Your task to perform on an android device: Go to CNN.com Image 0: 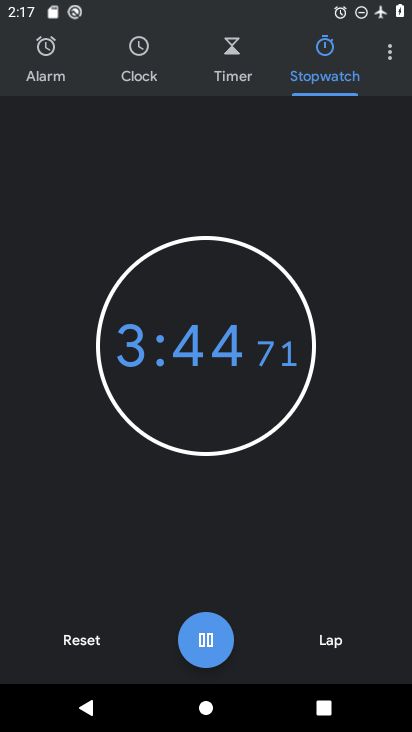
Step 0: press home button
Your task to perform on an android device: Go to CNN.com Image 1: 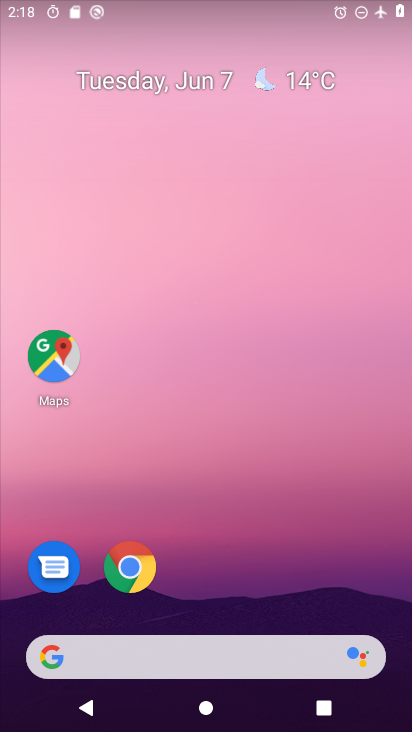
Step 1: drag from (302, 576) to (294, 54)
Your task to perform on an android device: Go to CNN.com Image 2: 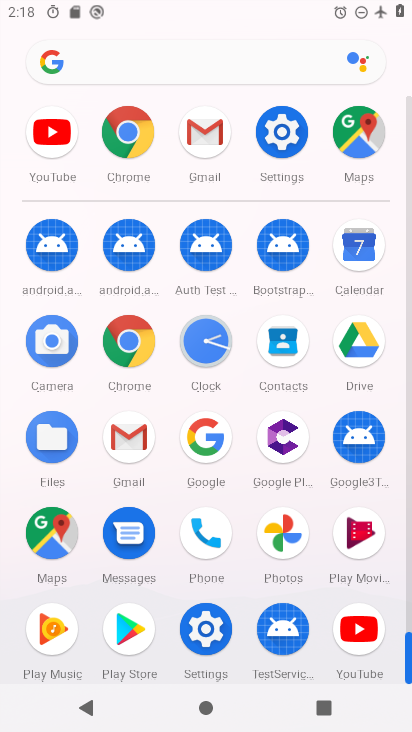
Step 2: click (147, 156)
Your task to perform on an android device: Go to CNN.com Image 3: 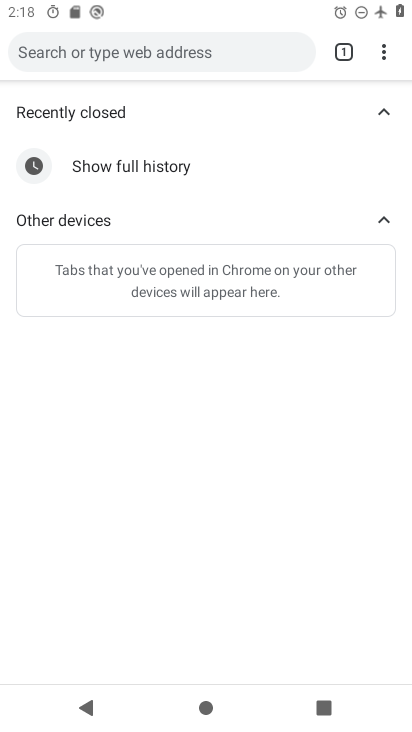
Step 3: click (158, 68)
Your task to perform on an android device: Go to CNN.com Image 4: 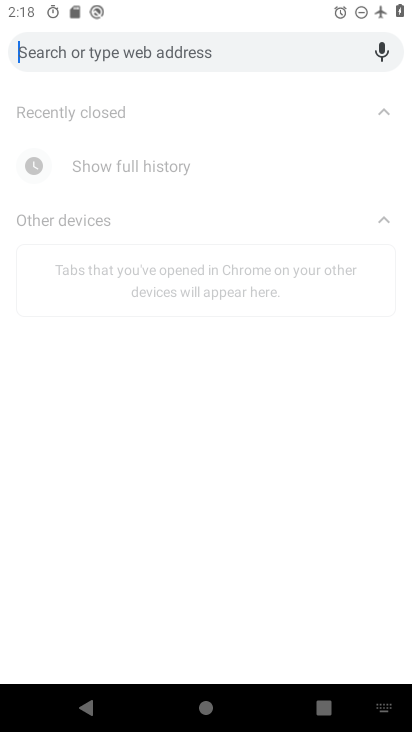
Step 4: type "cnn"
Your task to perform on an android device: Go to CNN.com Image 5: 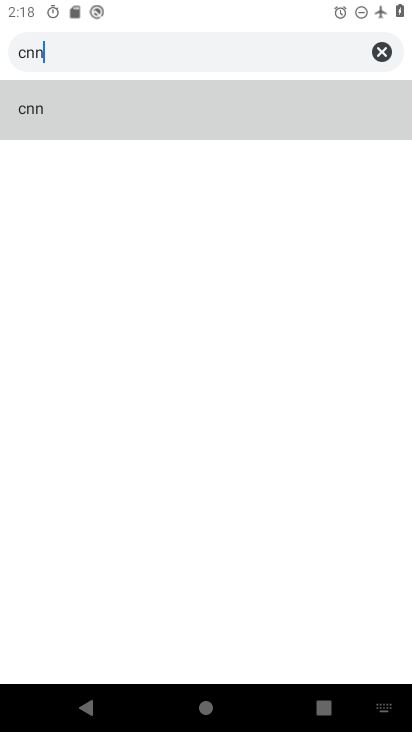
Step 5: click (73, 116)
Your task to perform on an android device: Go to CNN.com Image 6: 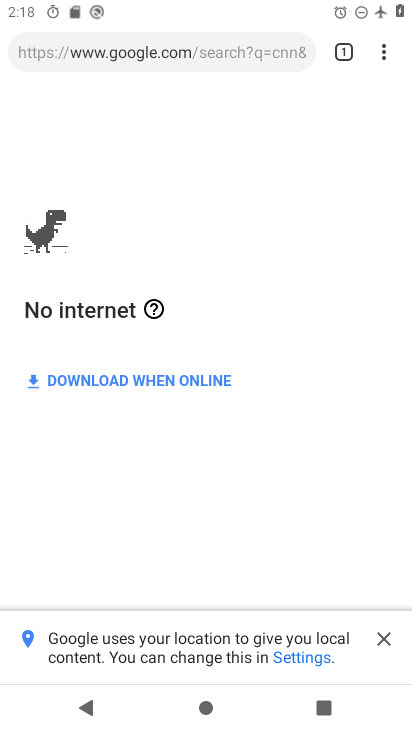
Step 6: task complete